Your task to perform on an android device: Open calendar and show me the second week of next month Image 0: 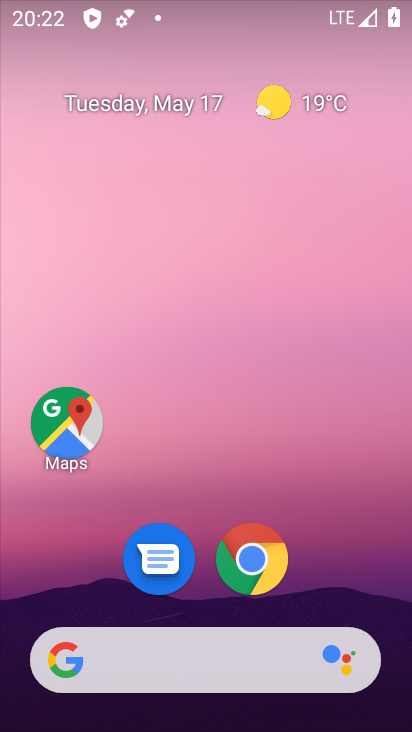
Step 0: drag from (205, 588) to (245, 178)
Your task to perform on an android device: Open calendar and show me the second week of next month Image 1: 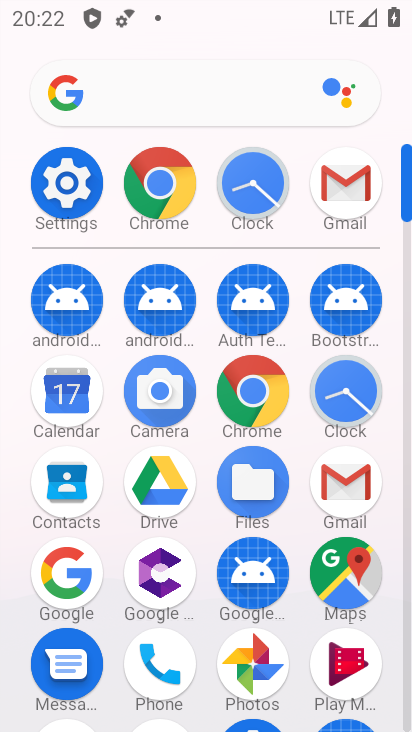
Step 1: drag from (196, 646) to (200, 258)
Your task to perform on an android device: Open calendar and show me the second week of next month Image 2: 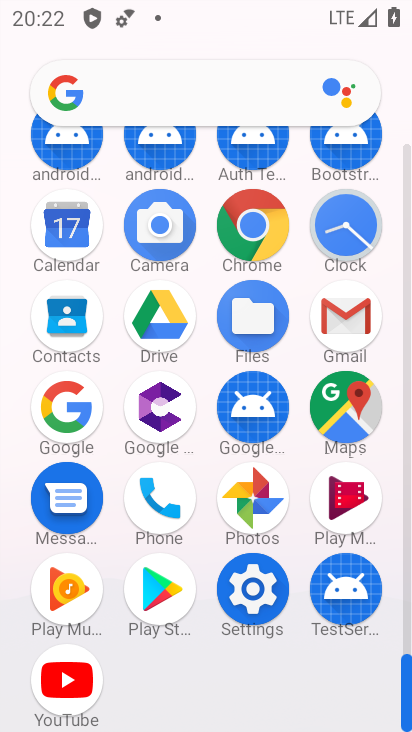
Step 2: click (81, 209)
Your task to perform on an android device: Open calendar and show me the second week of next month Image 3: 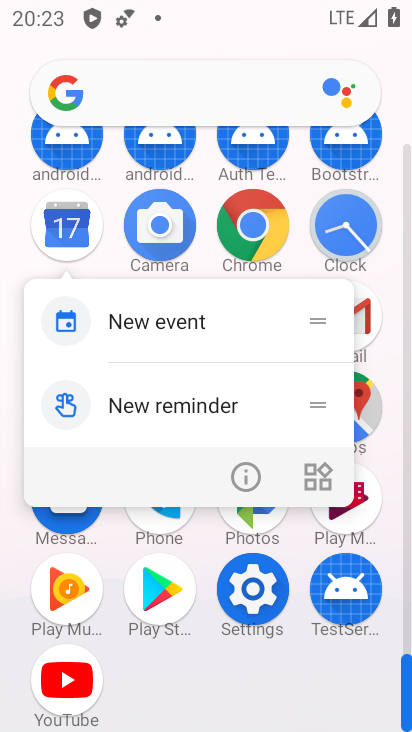
Step 3: click (252, 475)
Your task to perform on an android device: Open calendar and show me the second week of next month Image 4: 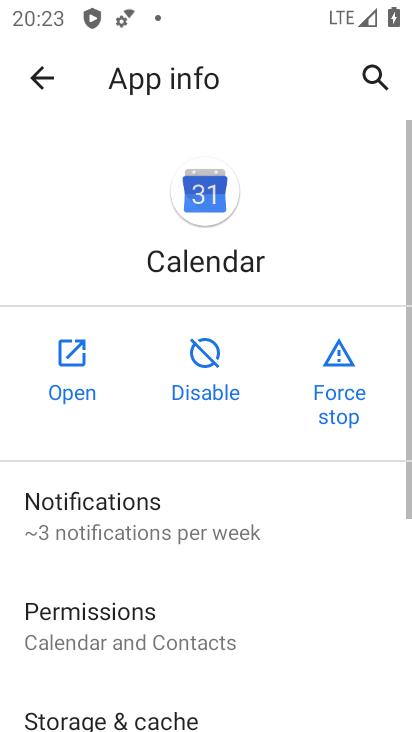
Step 4: click (74, 338)
Your task to perform on an android device: Open calendar and show me the second week of next month Image 5: 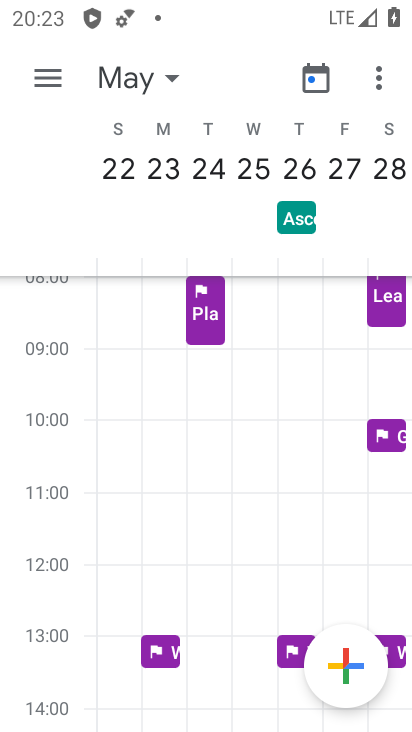
Step 5: click (154, 82)
Your task to perform on an android device: Open calendar and show me the second week of next month Image 6: 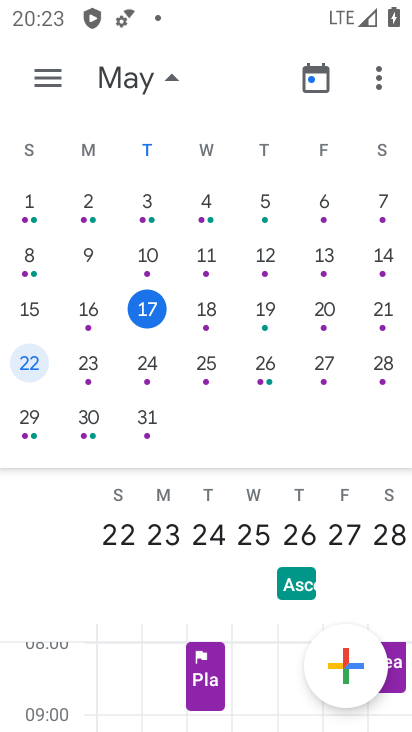
Step 6: drag from (375, 332) to (13, 340)
Your task to perform on an android device: Open calendar and show me the second week of next month Image 7: 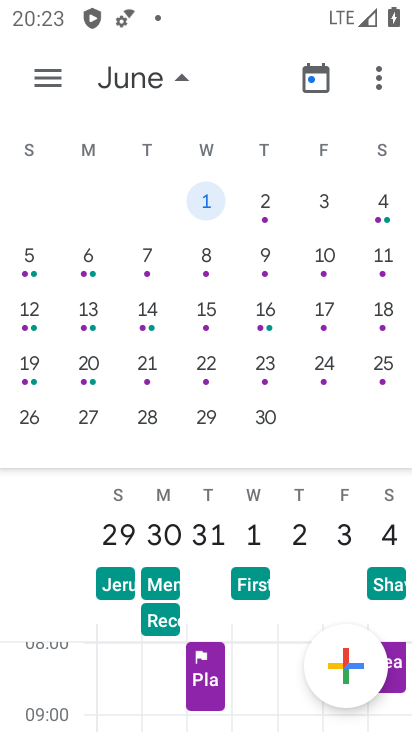
Step 7: click (258, 256)
Your task to perform on an android device: Open calendar and show me the second week of next month Image 8: 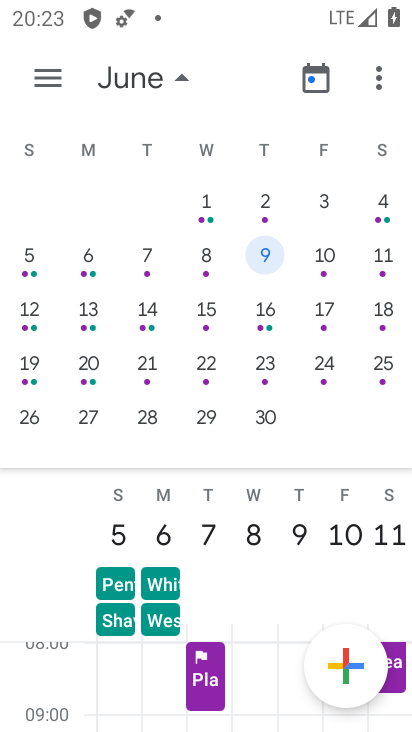
Step 8: task complete